Your task to perform on an android device: turn on priority inbox in the gmail app Image 0: 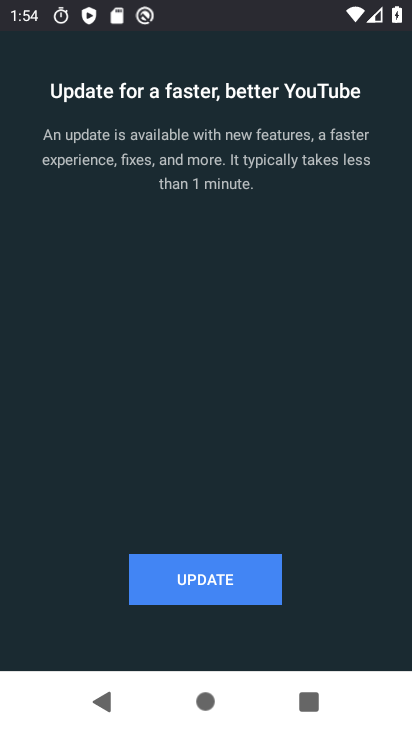
Step 0: press home button
Your task to perform on an android device: turn on priority inbox in the gmail app Image 1: 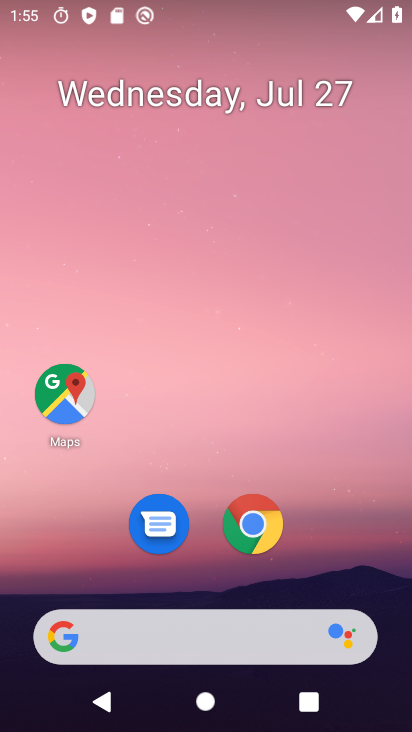
Step 1: drag from (354, 540) to (348, 24)
Your task to perform on an android device: turn on priority inbox in the gmail app Image 2: 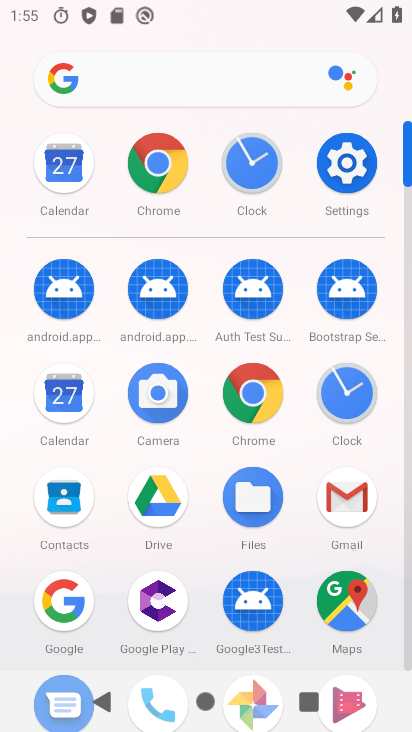
Step 2: click (355, 501)
Your task to perform on an android device: turn on priority inbox in the gmail app Image 3: 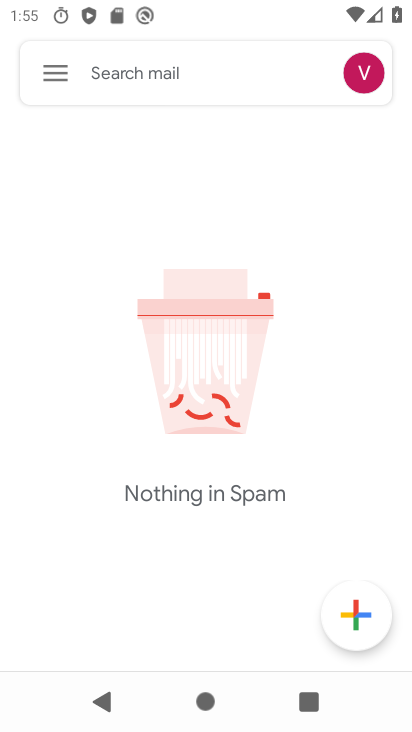
Step 3: click (57, 78)
Your task to perform on an android device: turn on priority inbox in the gmail app Image 4: 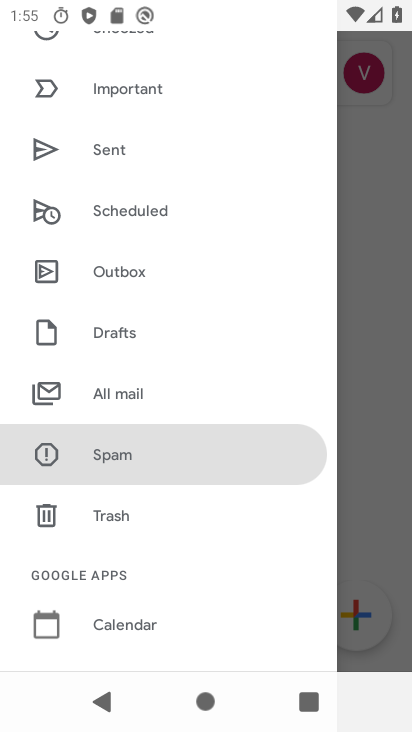
Step 4: drag from (225, 352) to (228, 95)
Your task to perform on an android device: turn on priority inbox in the gmail app Image 5: 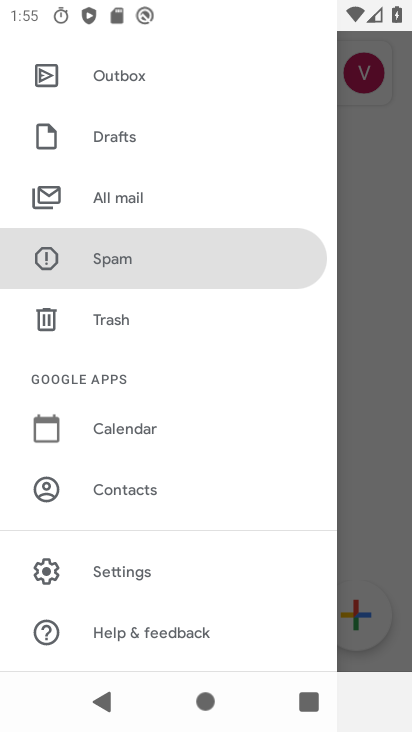
Step 5: click (143, 562)
Your task to perform on an android device: turn on priority inbox in the gmail app Image 6: 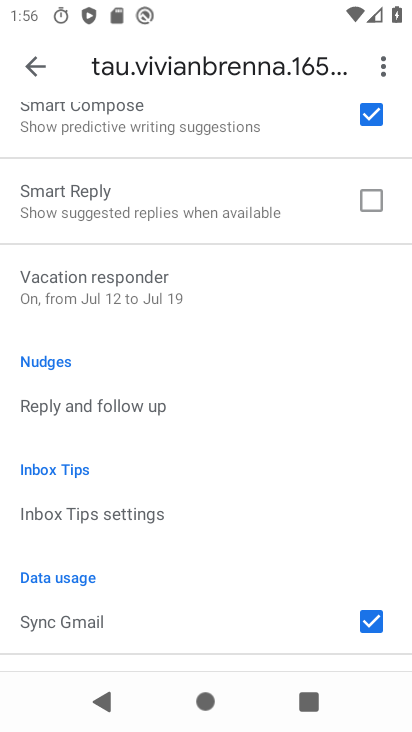
Step 6: drag from (245, 278) to (217, 518)
Your task to perform on an android device: turn on priority inbox in the gmail app Image 7: 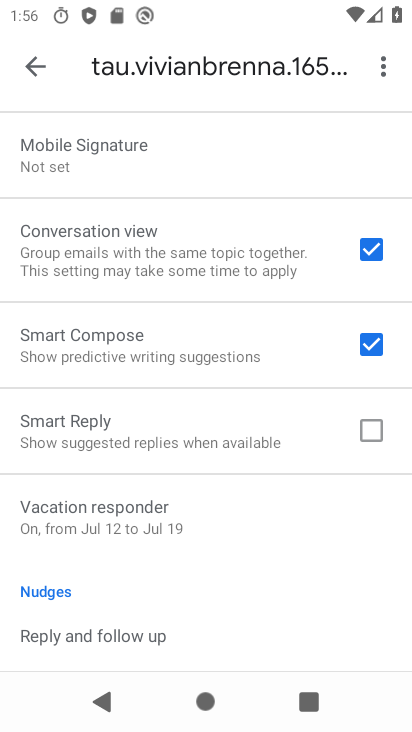
Step 7: drag from (223, 177) to (221, 532)
Your task to perform on an android device: turn on priority inbox in the gmail app Image 8: 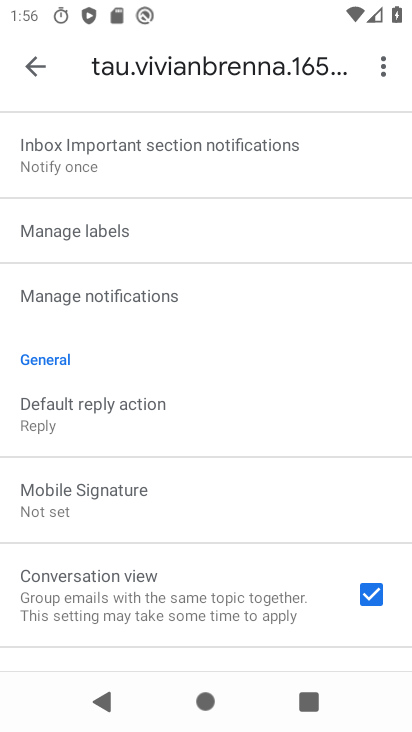
Step 8: drag from (223, 220) to (228, 496)
Your task to perform on an android device: turn on priority inbox in the gmail app Image 9: 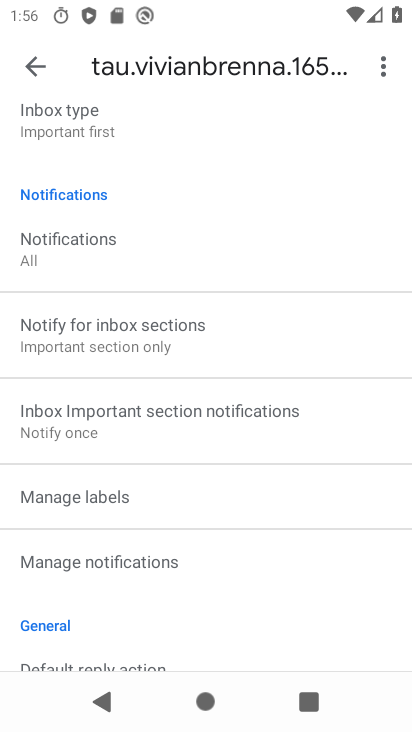
Step 9: drag from (249, 241) to (266, 522)
Your task to perform on an android device: turn on priority inbox in the gmail app Image 10: 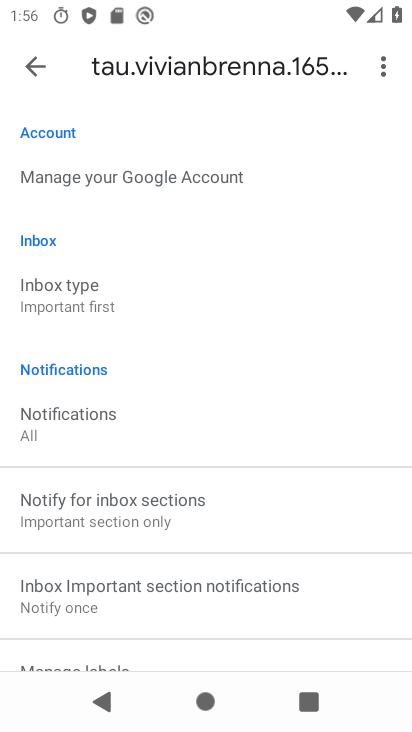
Step 10: click (92, 288)
Your task to perform on an android device: turn on priority inbox in the gmail app Image 11: 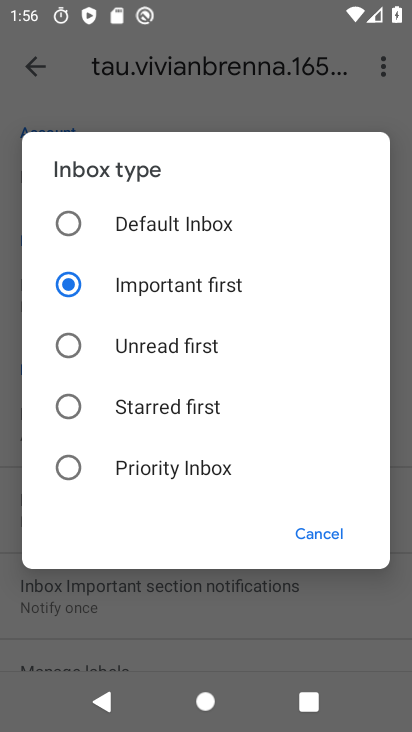
Step 11: click (71, 469)
Your task to perform on an android device: turn on priority inbox in the gmail app Image 12: 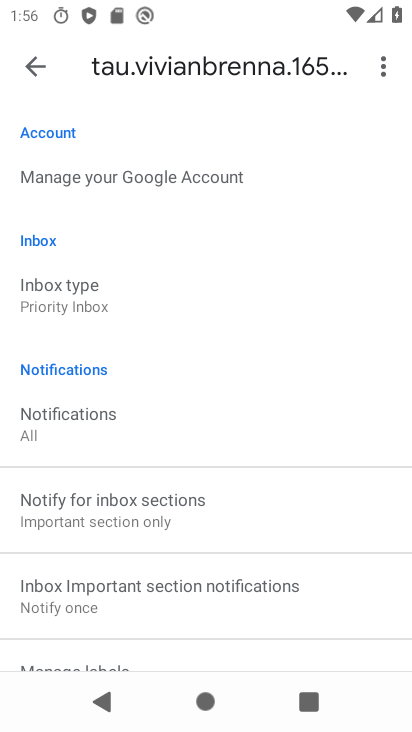
Step 12: task complete